Your task to perform on an android device: Clear all items from cart on ebay.com. Search for "jbl flip 4" on ebay.com, select the first entry, and add it to the cart. Image 0: 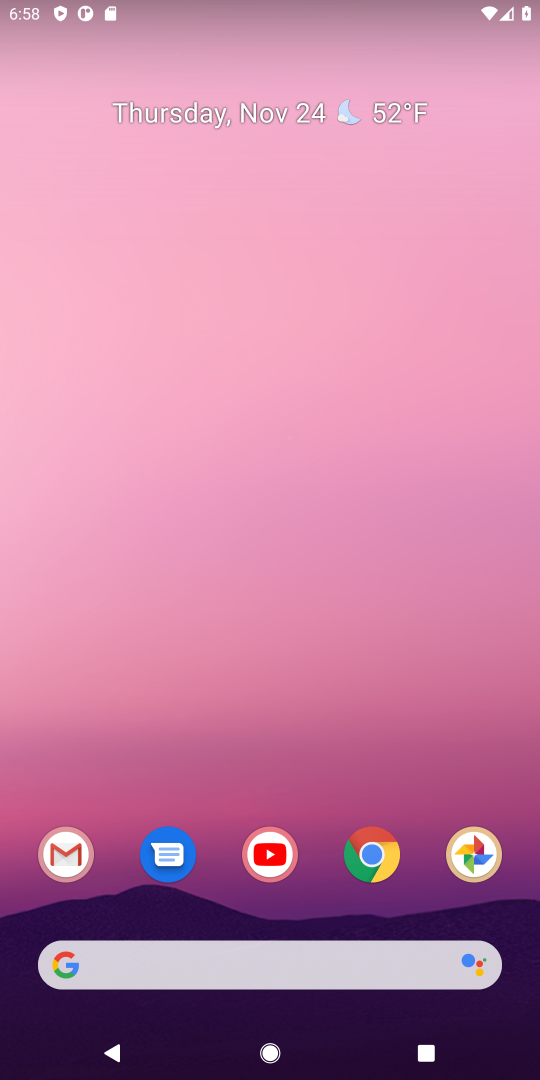
Step 0: click (370, 861)
Your task to perform on an android device: Clear all items from cart on ebay.com. Search for "jbl flip 4" on ebay.com, select the first entry, and add it to the cart. Image 1: 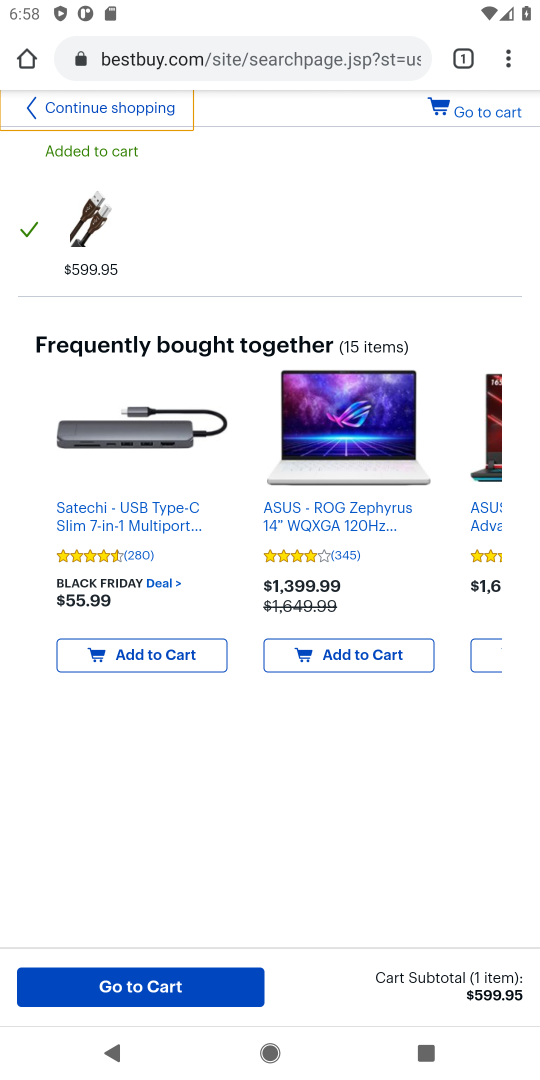
Step 1: click (197, 60)
Your task to perform on an android device: Clear all items from cart on ebay.com. Search for "jbl flip 4" on ebay.com, select the first entry, and add it to the cart. Image 2: 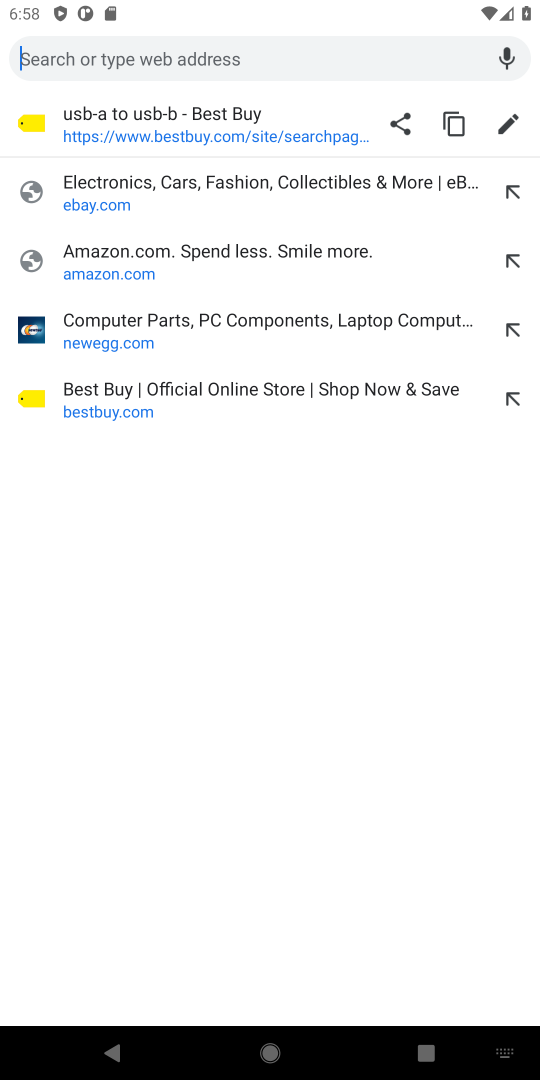
Step 2: click (111, 210)
Your task to perform on an android device: Clear all items from cart on ebay.com. Search for "jbl flip 4" on ebay.com, select the first entry, and add it to the cart. Image 3: 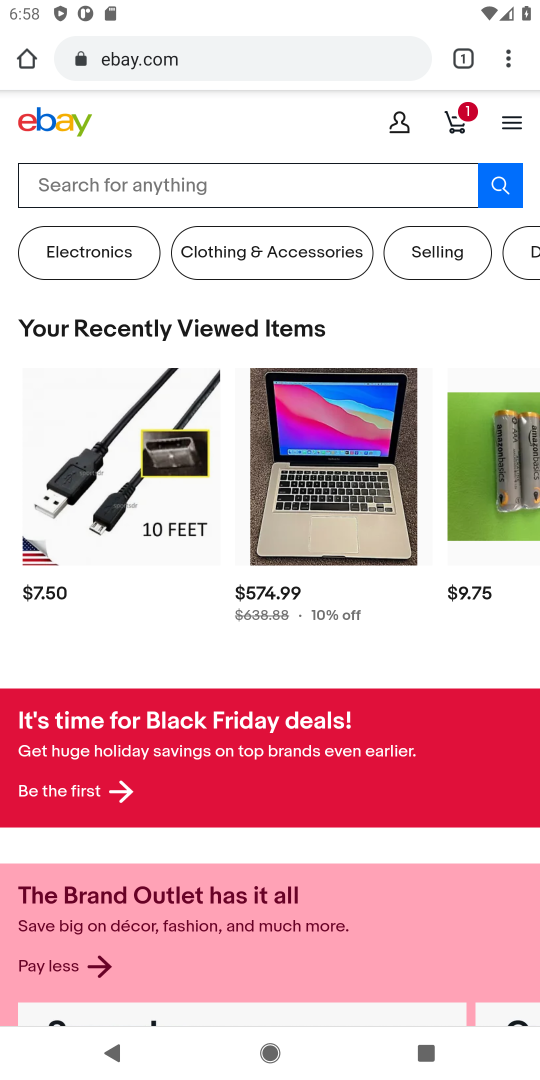
Step 3: click (459, 122)
Your task to perform on an android device: Clear all items from cart on ebay.com. Search for "jbl flip 4" on ebay.com, select the first entry, and add it to the cart. Image 4: 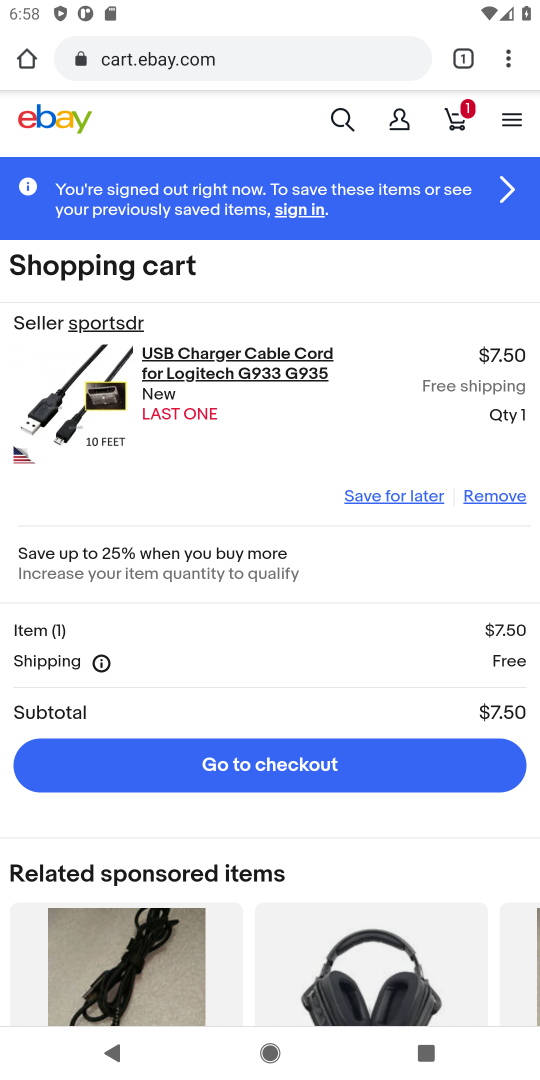
Step 4: click (501, 496)
Your task to perform on an android device: Clear all items from cart on ebay.com. Search for "jbl flip 4" on ebay.com, select the first entry, and add it to the cart. Image 5: 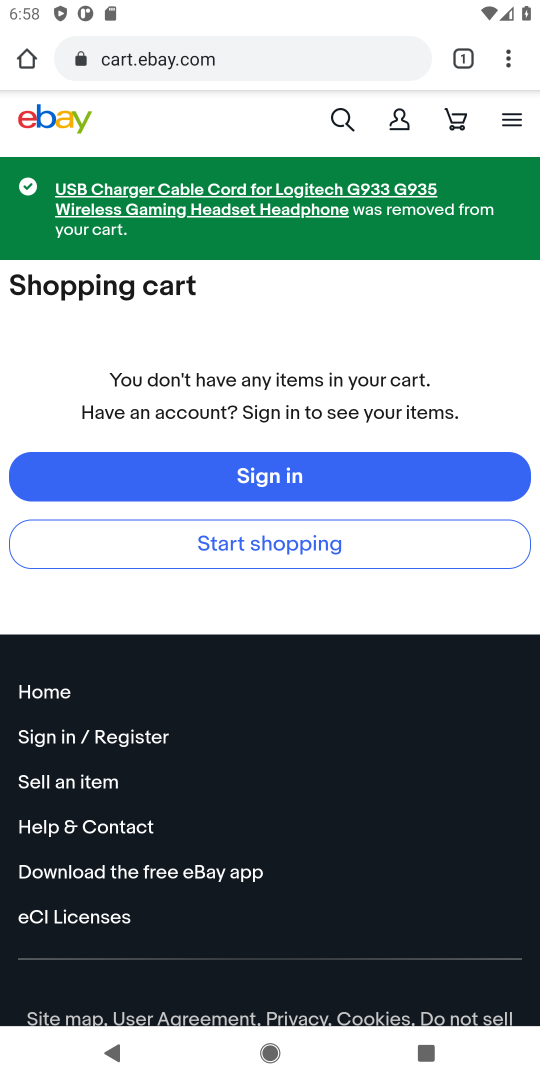
Step 5: click (341, 110)
Your task to perform on an android device: Clear all items from cart on ebay.com. Search for "jbl flip 4" on ebay.com, select the first entry, and add it to the cart. Image 6: 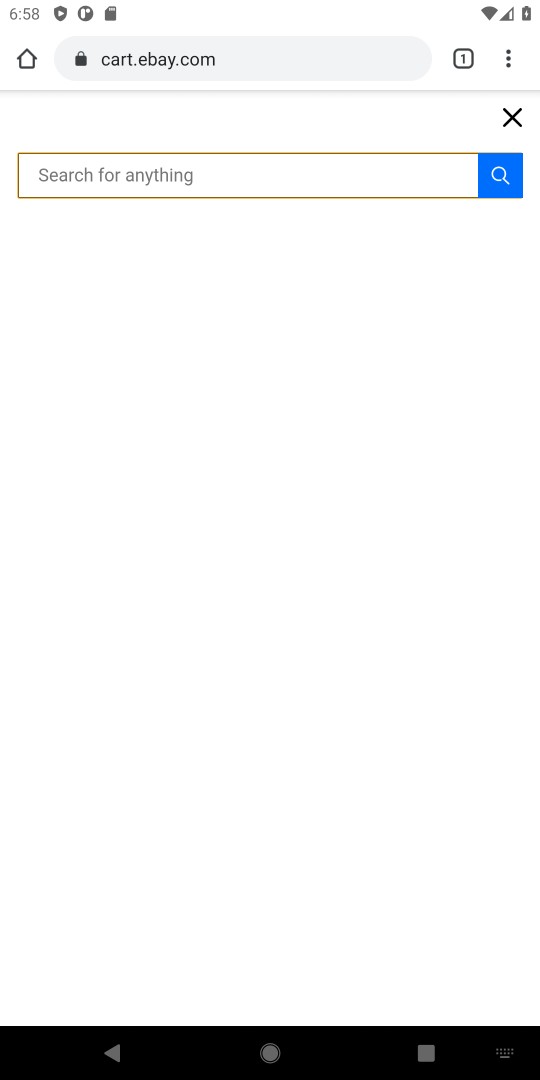
Step 6: type "jbl flip 4"
Your task to perform on an android device: Clear all items from cart on ebay.com. Search for "jbl flip 4" on ebay.com, select the first entry, and add it to the cart. Image 7: 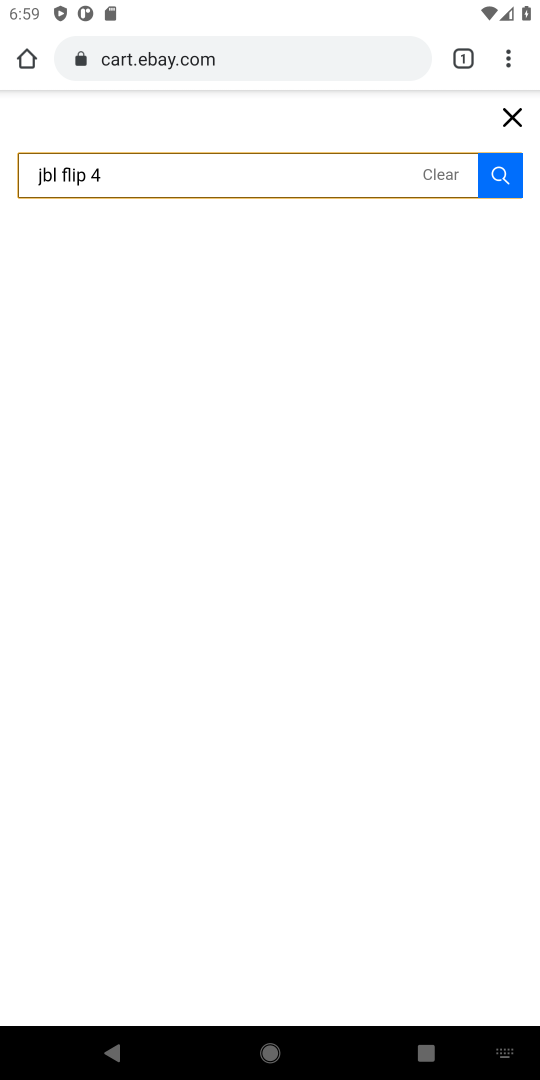
Step 7: click (503, 169)
Your task to perform on an android device: Clear all items from cart on ebay.com. Search for "jbl flip 4" on ebay.com, select the first entry, and add it to the cart. Image 8: 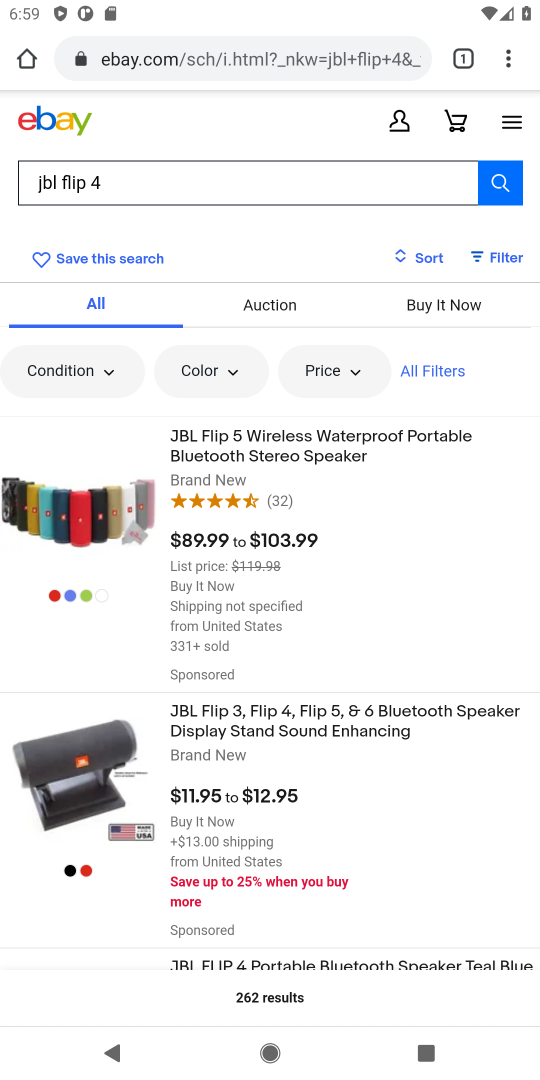
Step 8: task complete